Your task to perform on an android device: Clear the cart on target.com. Add "lenovo thinkpad" to the cart on target.com Image 0: 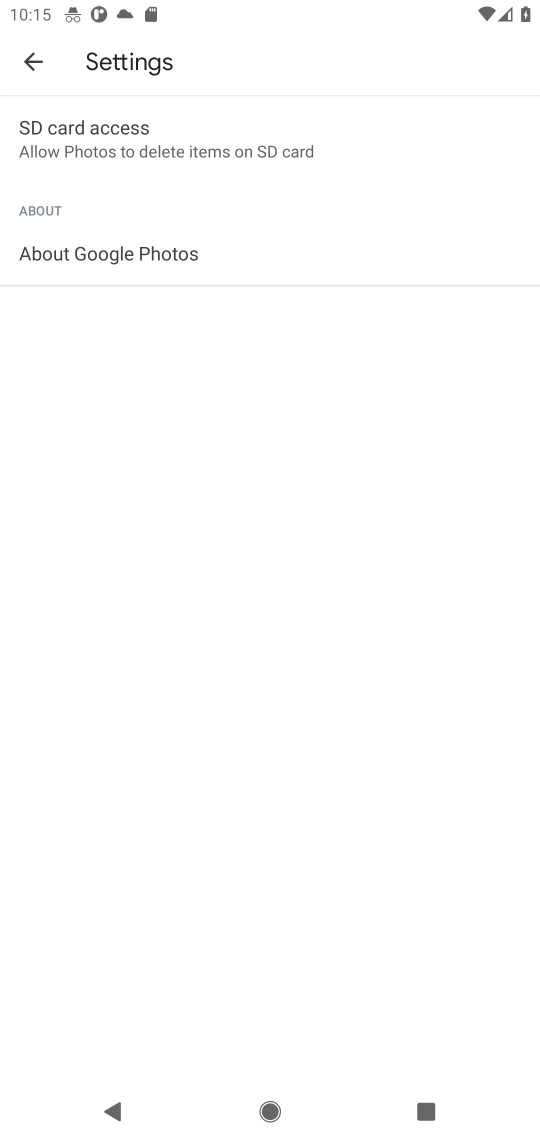
Step 0: press home button
Your task to perform on an android device: Clear the cart on target.com. Add "lenovo thinkpad" to the cart on target.com Image 1: 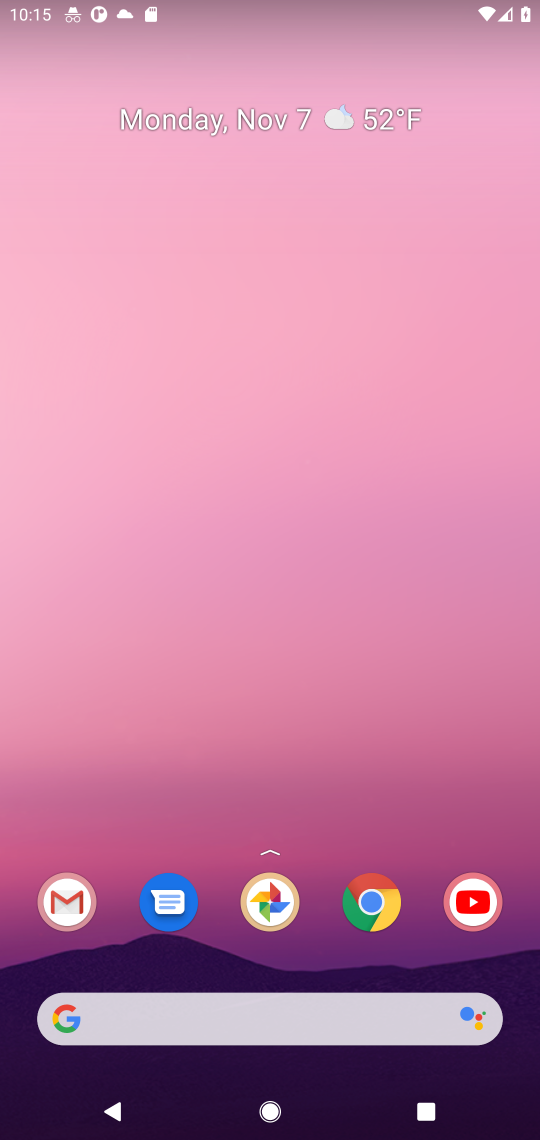
Step 1: click (373, 893)
Your task to perform on an android device: Clear the cart on target.com. Add "lenovo thinkpad" to the cart on target.com Image 2: 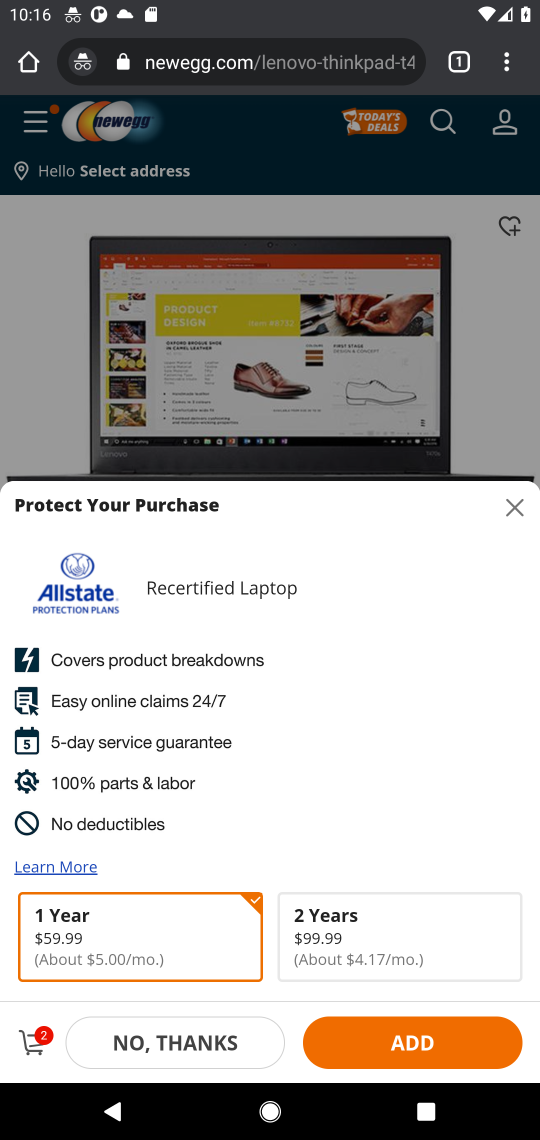
Step 2: click (211, 67)
Your task to perform on an android device: Clear the cart on target.com. Add "lenovo thinkpad" to the cart on target.com Image 3: 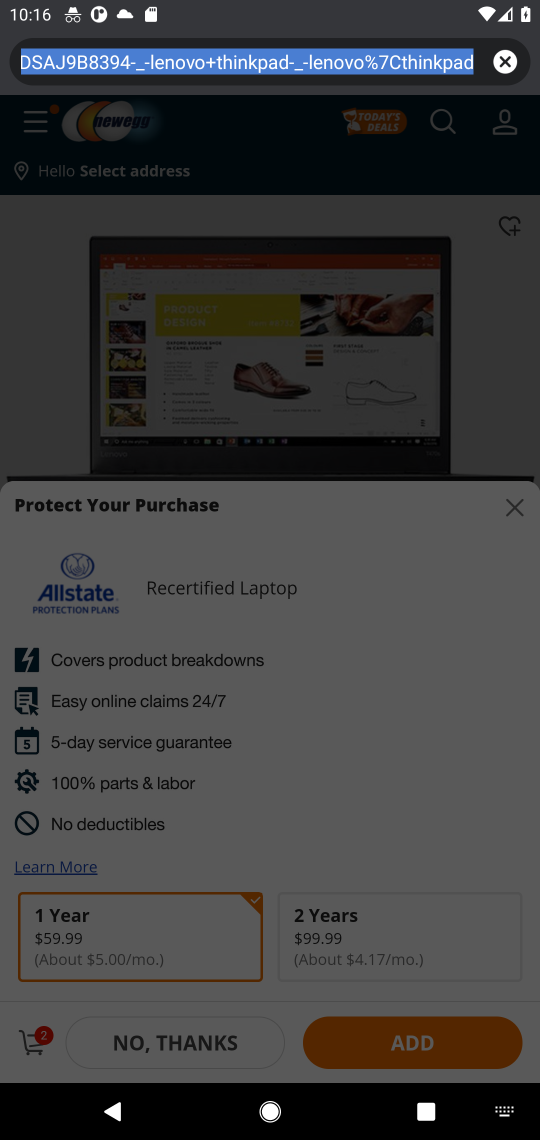
Step 3: type "target.com"
Your task to perform on an android device: Clear the cart on target.com. Add "lenovo thinkpad" to the cart on target.com Image 4: 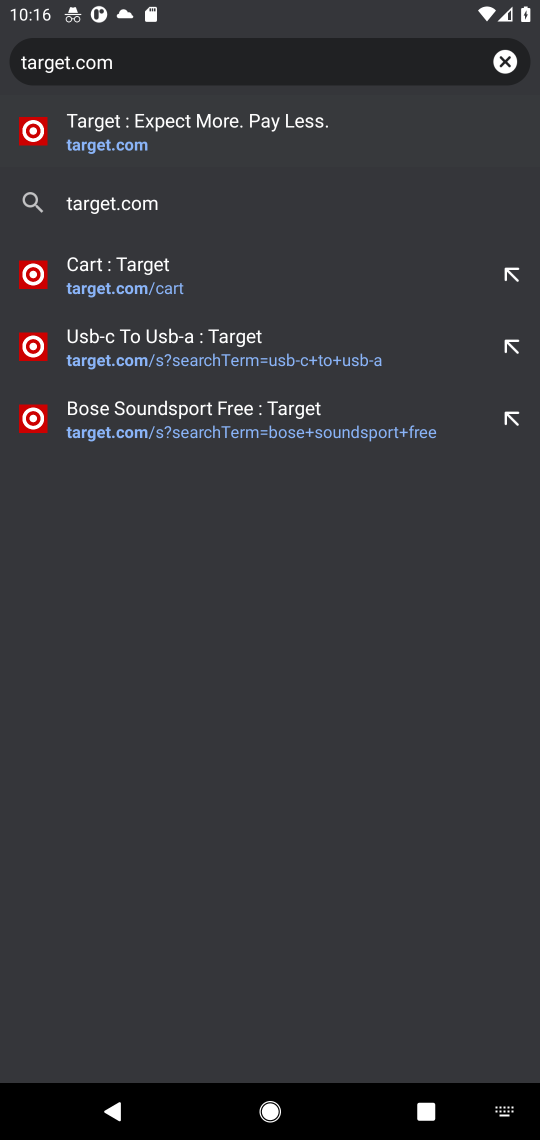
Step 4: click (73, 145)
Your task to perform on an android device: Clear the cart on target.com. Add "lenovo thinkpad" to the cart on target.com Image 5: 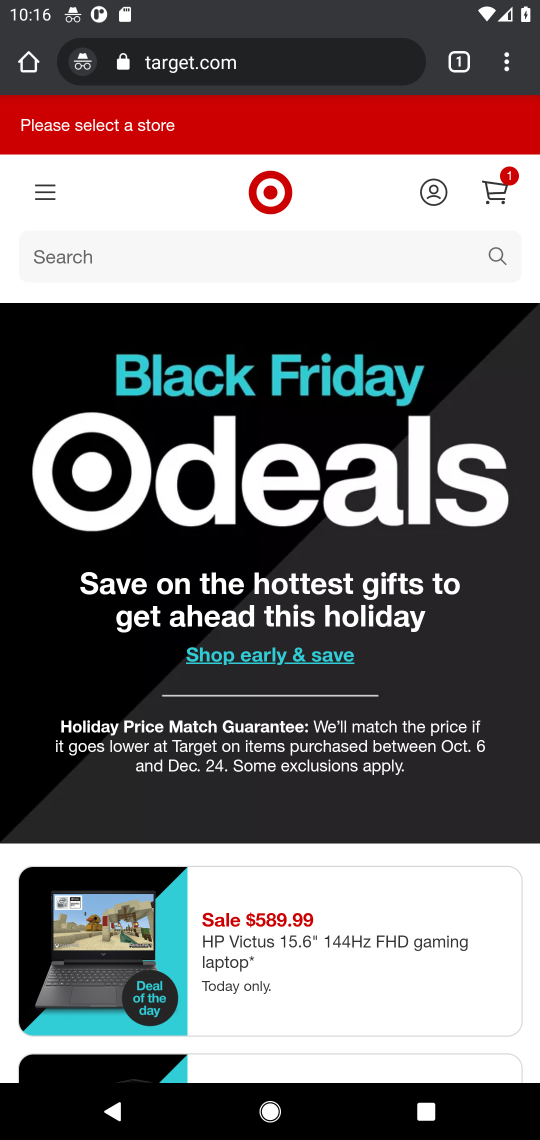
Step 5: click (494, 195)
Your task to perform on an android device: Clear the cart on target.com. Add "lenovo thinkpad" to the cart on target.com Image 6: 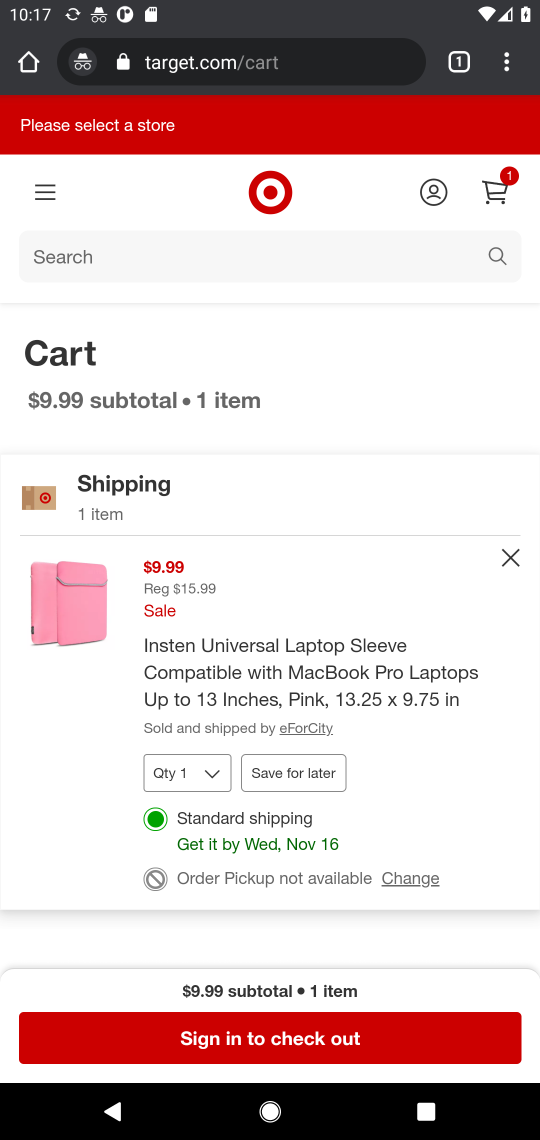
Step 6: click (507, 562)
Your task to perform on an android device: Clear the cart on target.com. Add "lenovo thinkpad" to the cart on target.com Image 7: 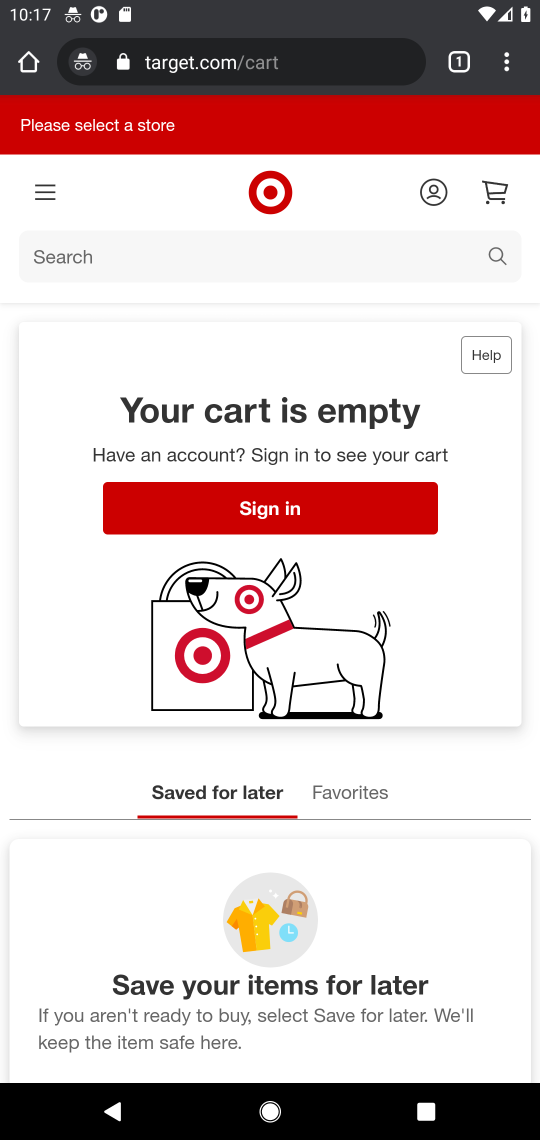
Step 7: click (493, 258)
Your task to perform on an android device: Clear the cart on target.com. Add "lenovo thinkpad" to the cart on target.com Image 8: 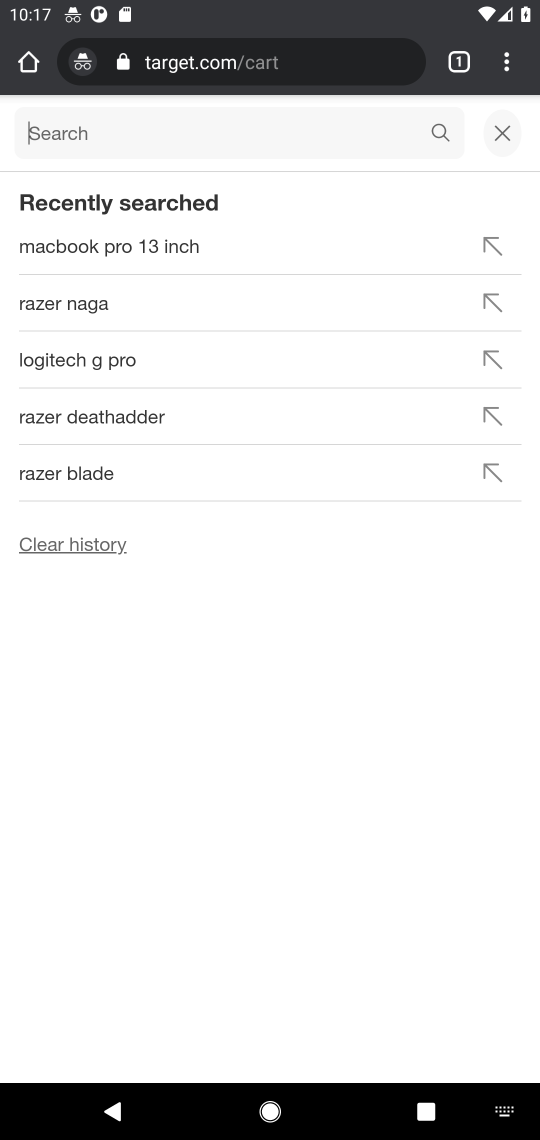
Step 8: type "lenovo thinkpad"
Your task to perform on an android device: Clear the cart on target.com. Add "lenovo thinkpad" to the cart on target.com Image 9: 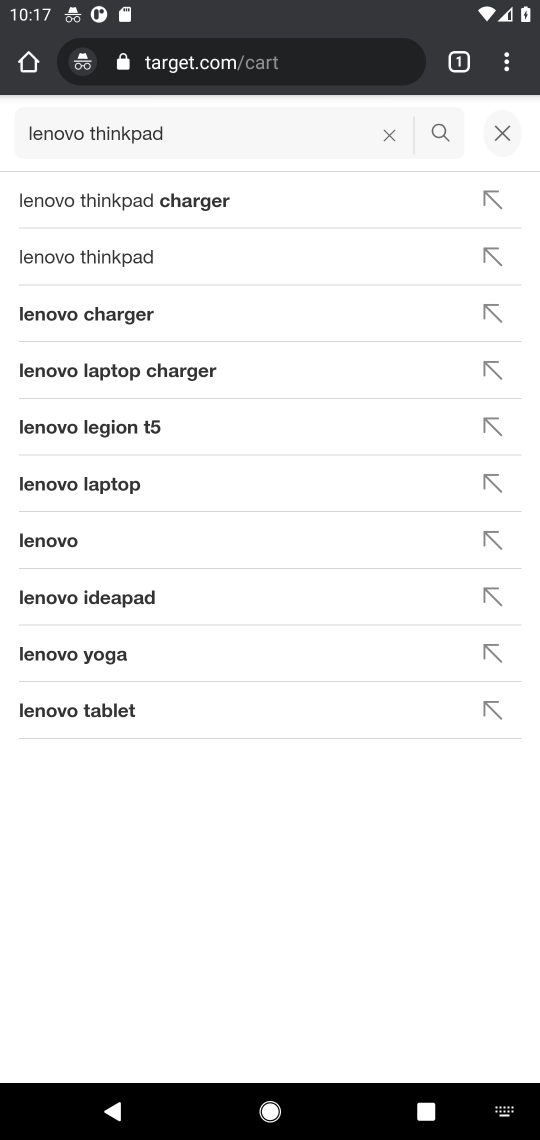
Step 9: click (62, 261)
Your task to perform on an android device: Clear the cart on target.com. Add "lenovo thinkpad" to the cart on target.com Image 10: 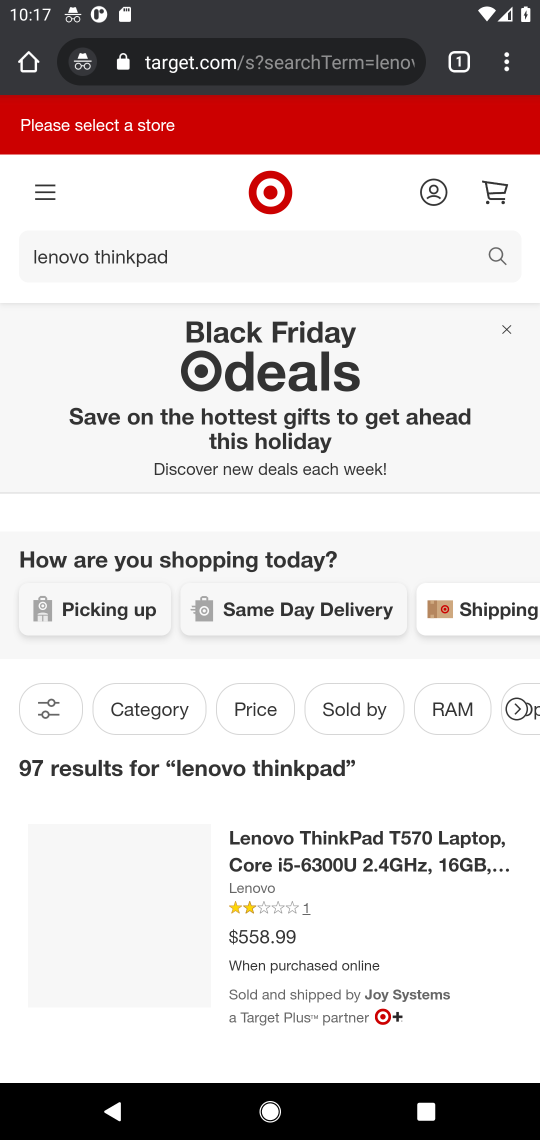
Step 10: drag from (306, 824) to (284, 353)
Your task to perform on an android device: Clear the cart on target.com. Add "lenovo thinkpad" to the cart on target.com Image 11: 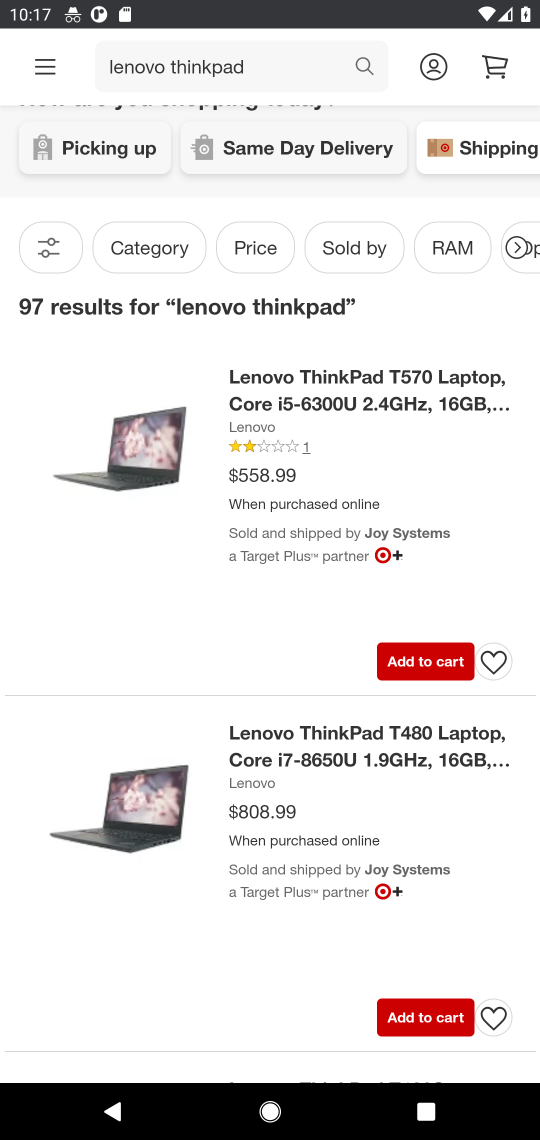
Step 11: click (417, 662)
Your task to perform on an android device: Clear the cart on target.com. Add "lenovo thinkpad" to the cart on target.com Image 12: 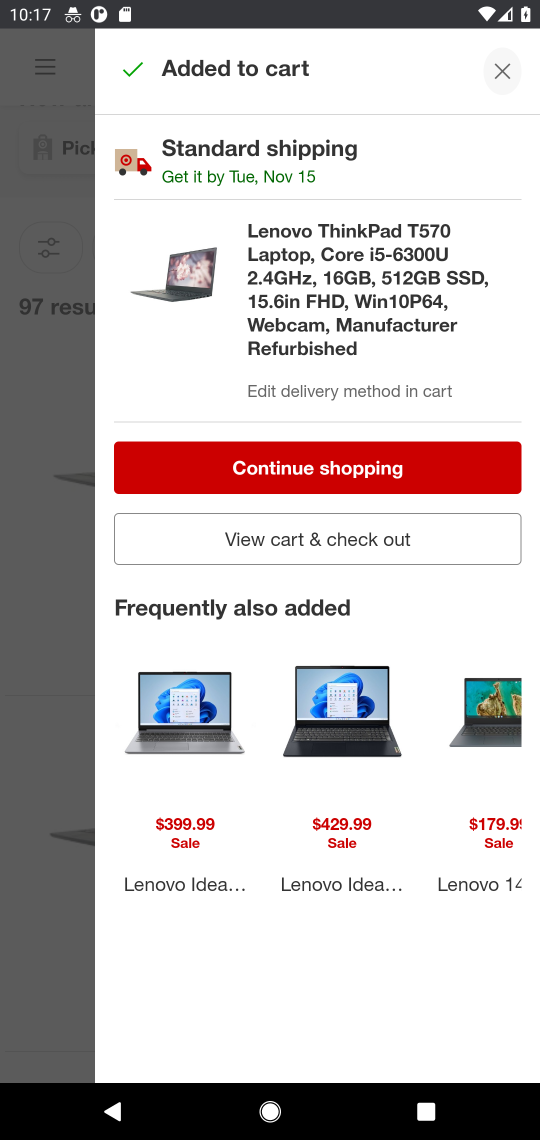
Step 12: task complete